Your task to perform on an android device: uninstall "Facebook" Image 0: 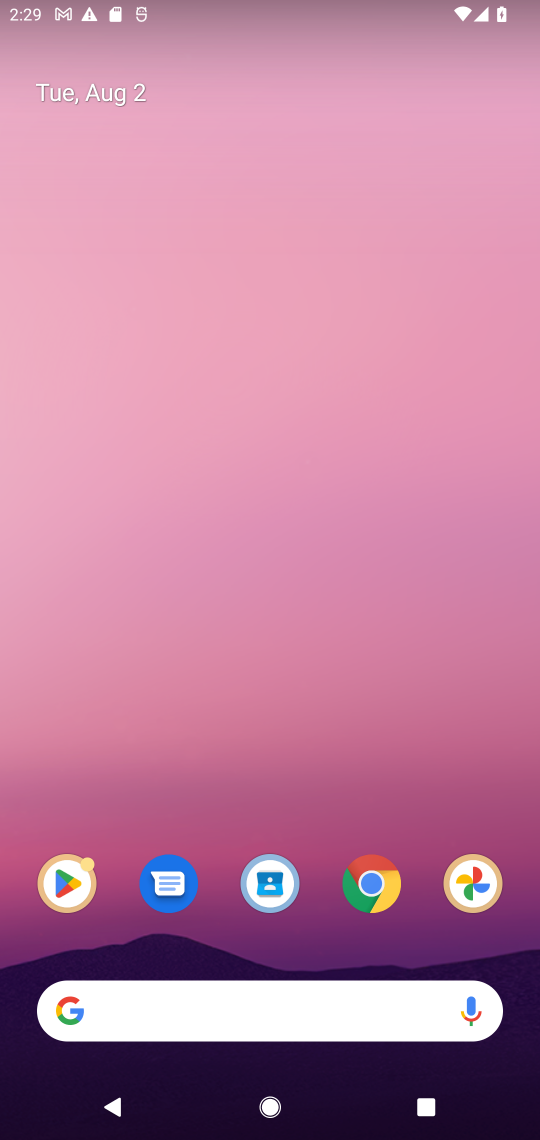
Step 0: click (52, 901)
Your task to perform on an android device: uninstall "Facebook" Image 1: 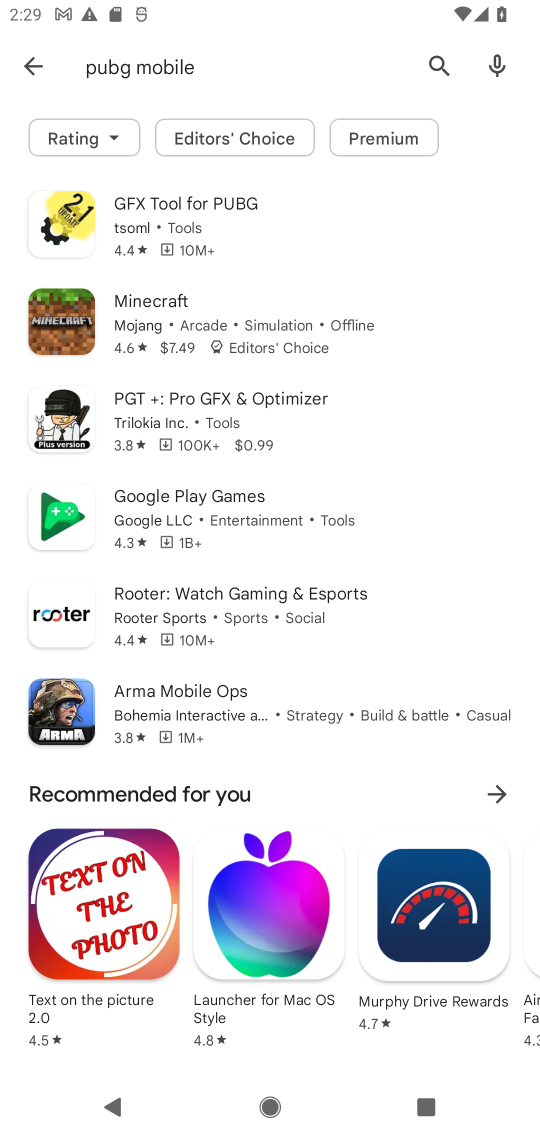
Step 1: click (424, 73)
Your task to perform on an android device: uninstall "Facebook" Image 2: 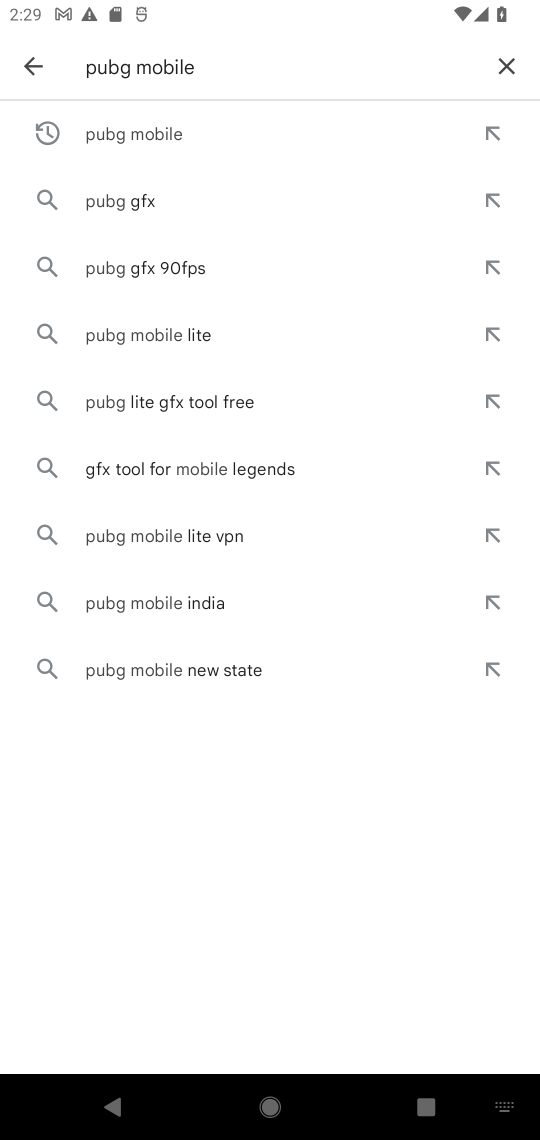
Step 2: click (481, 67)
Your task to perform on an android device: uninstall "Facebook" Image 3: 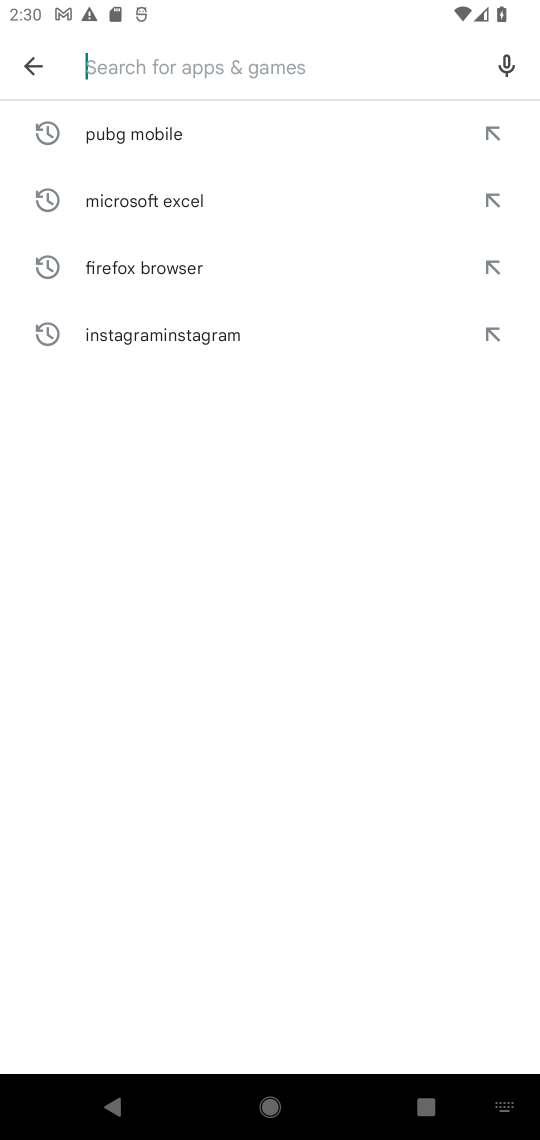
Step 3: click (131, 68)
Your task to perform on an android device: uninstall "Facebook" Image 4: 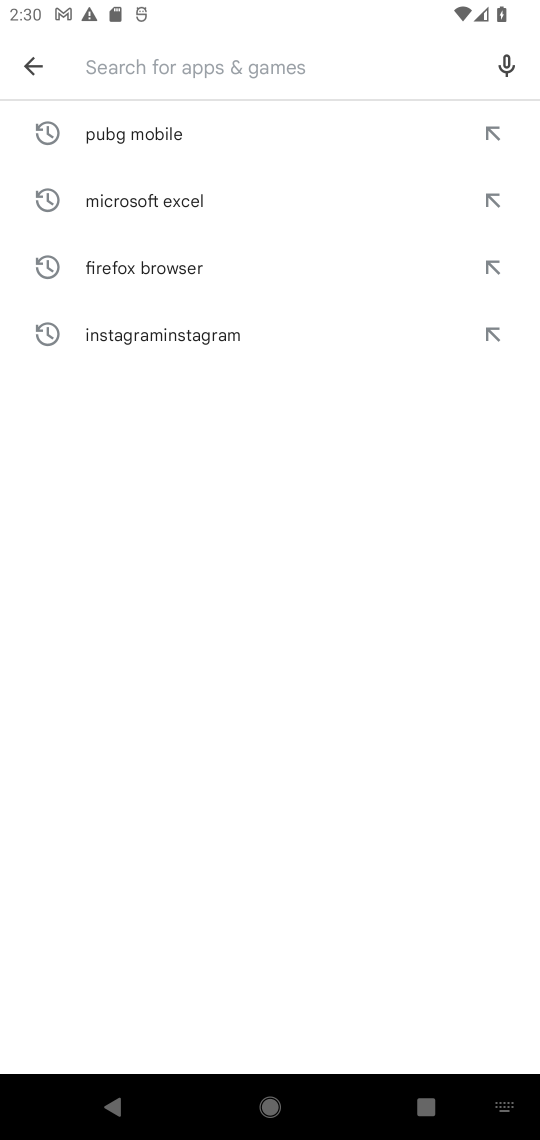
Step 4: type "Facebook"
Your task to perform on an android device: uninstall "Facebook" Image 5: 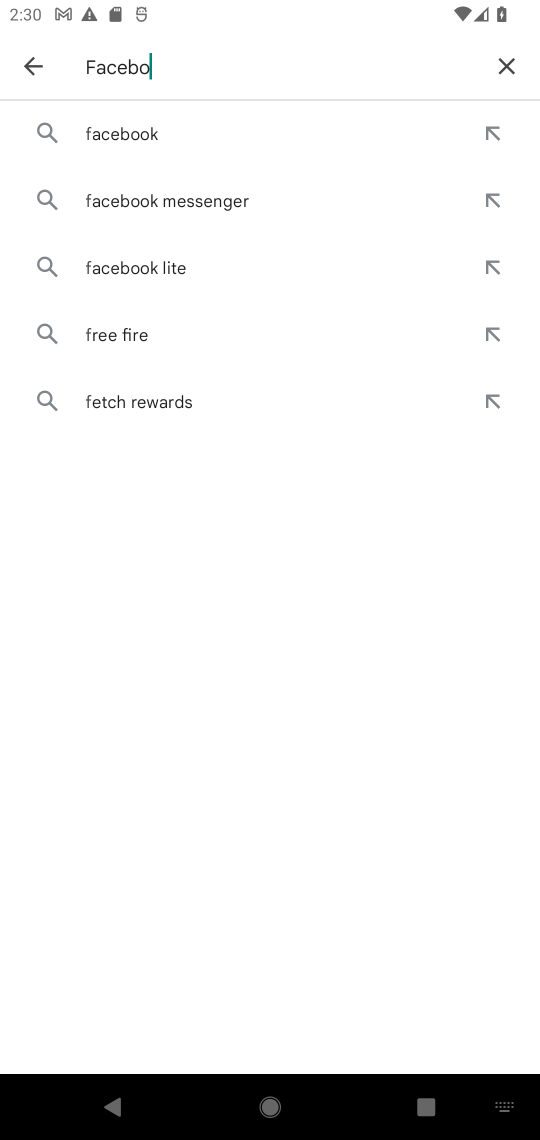
Step 5: type ""
Your task to perform on an android device: uninstall "Facebook" Image 6: 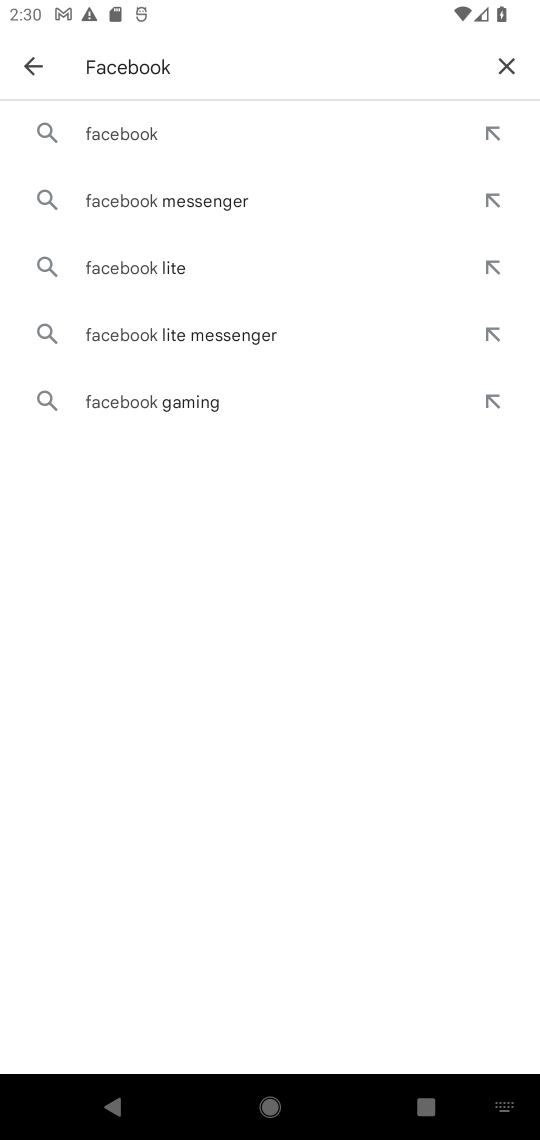
Step 6: click (146, 147)
Your task to perform on an android device: uninstall "Facebook" Image 7: 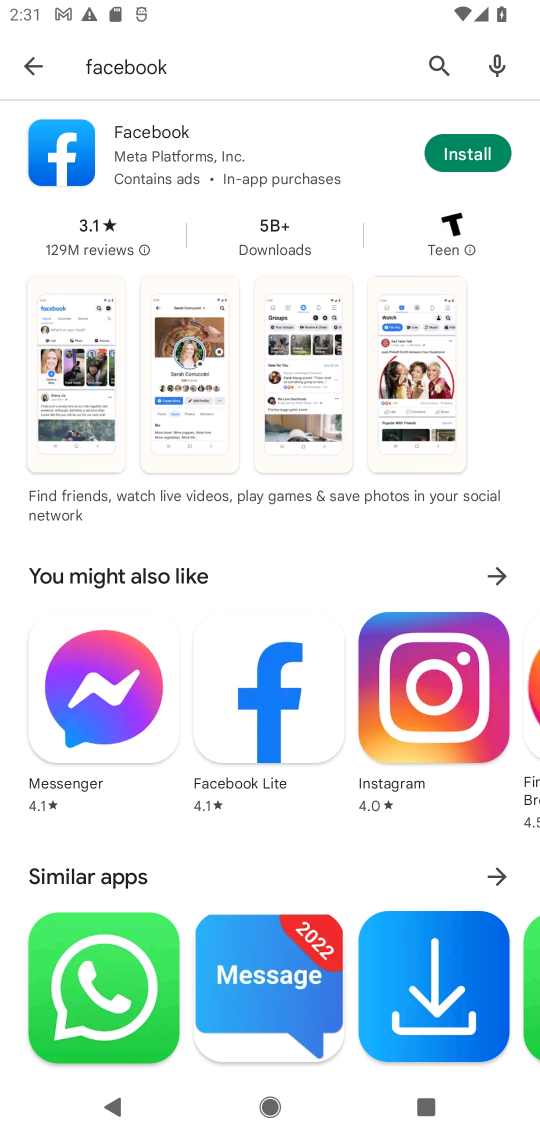
Step 7: task complete